Your task to perform on an android device: Open location settings Image 0: 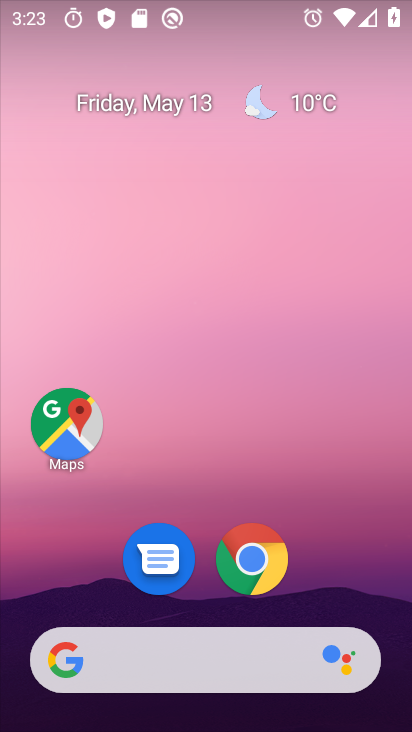
Step 0: drag from (185, 609) to (235, 205)
Your task to perform on an android device: Open location settings Image 1: 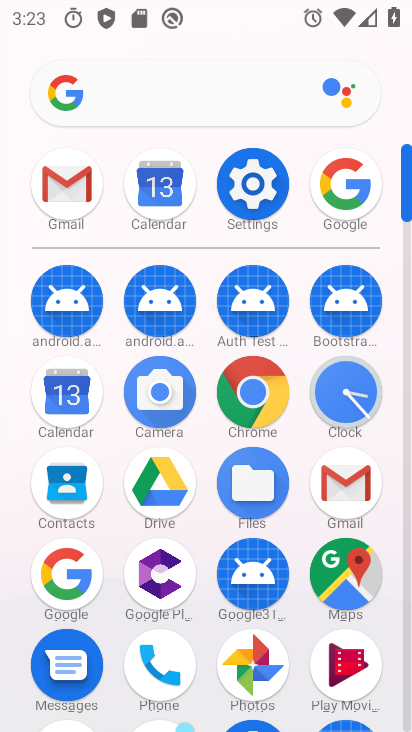
Step 1: click (240, 199)
Your task to perform on an android device: Open location settings Image 2: 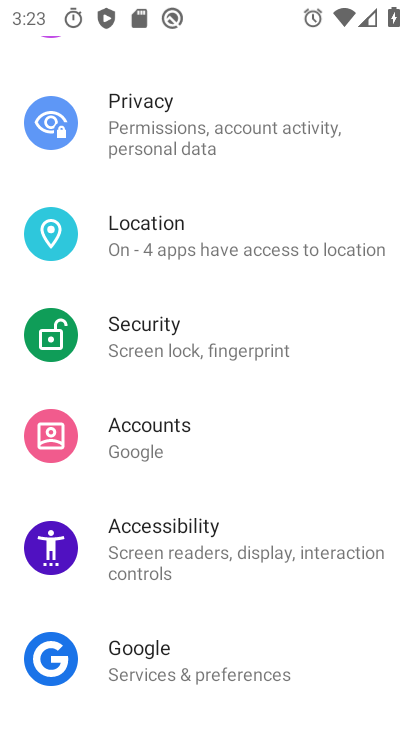
Step 2: drag from (254, 615) to (243, 235)
Your task to perform on an android device: Open location settings Image 3: 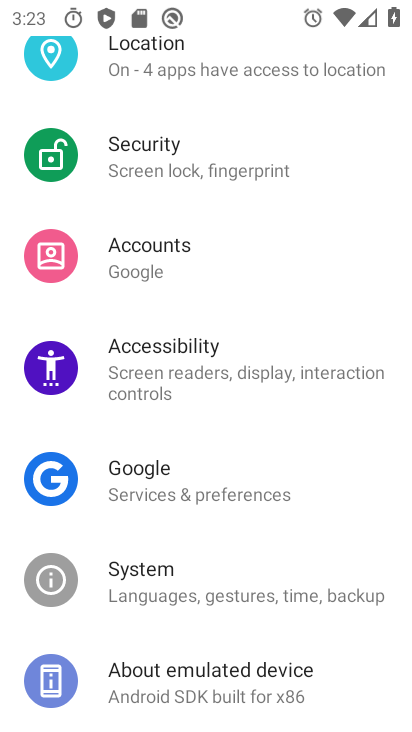
Step 3: drag from (180, 599) to (188, 257)
Your task to perform on an android device: Open location settings Image 4: 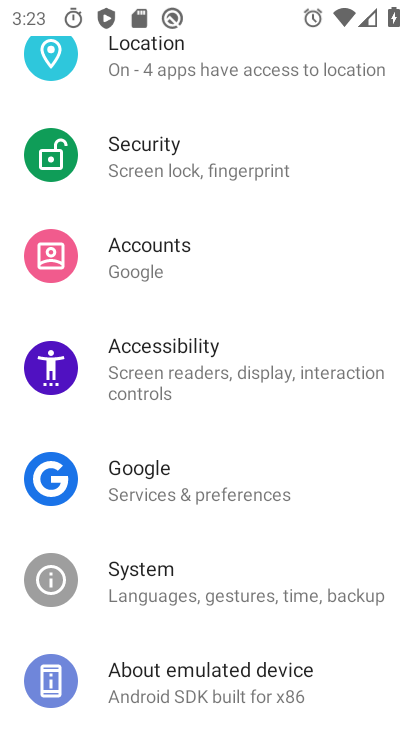
Step 4: drag from (234, 634) to (226, 540)
Your task to perform on an android device: Open location settings Image 5: 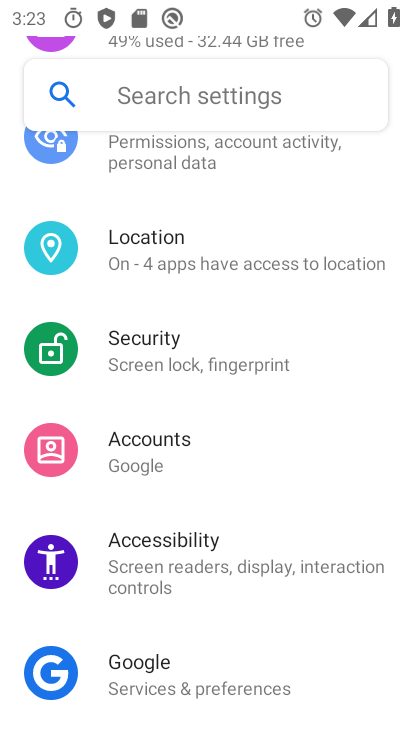
Step 5: click (185, 278)
Your task to perform on an android device: Open location settings Image 6: 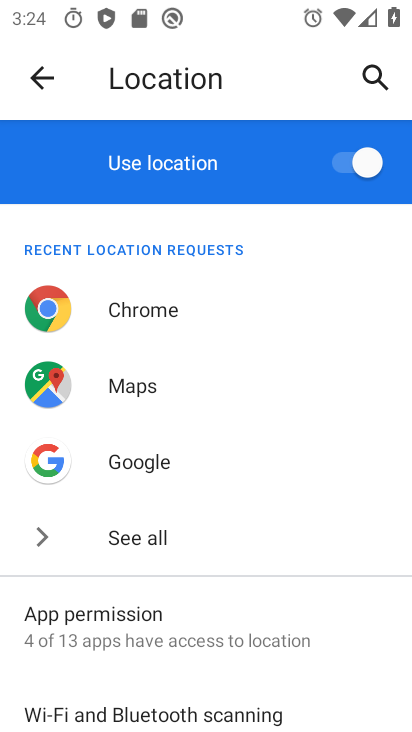
Step 6: task complete